Your task to perform on an android device: Open the web browser Image 0: 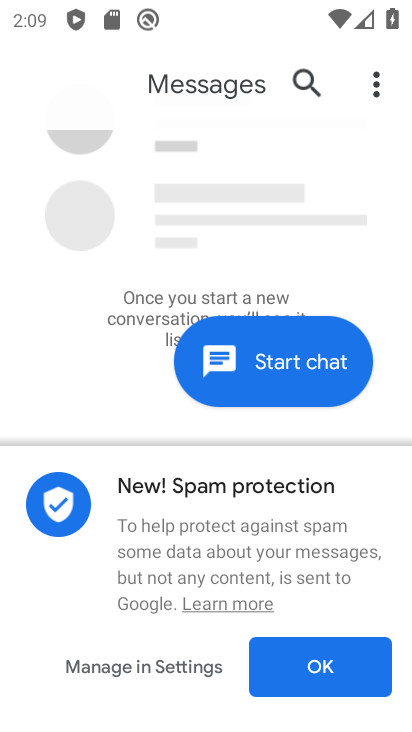
Step 0: press back button
Your task to perform on an android device: Open the web browser Image 1: 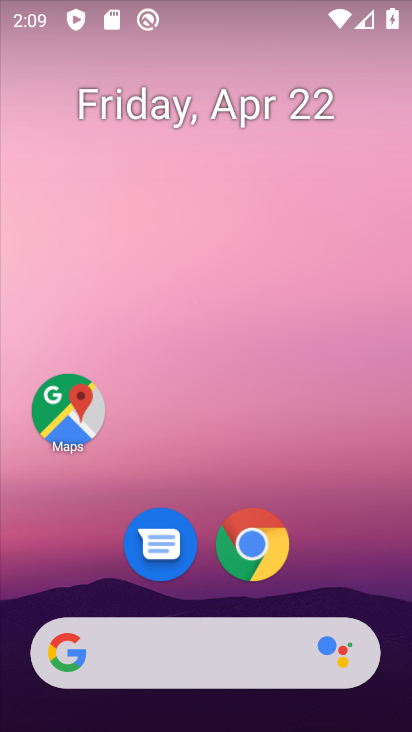
Step 1: drag from (207, 423) to (291, 10)
Your task to perform on an android device: Open the web browser Image 2: 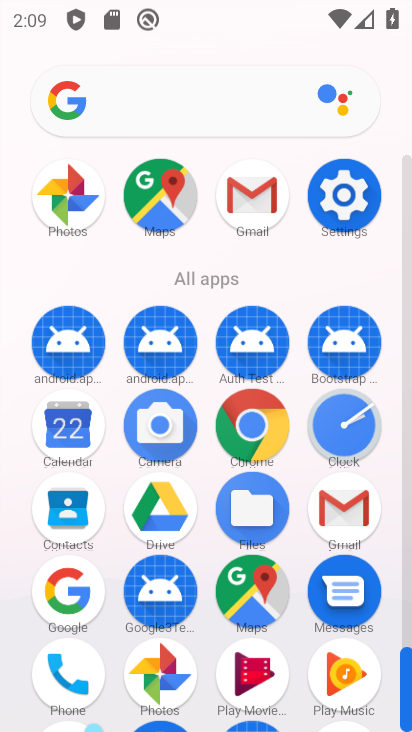
Step 2: click (243, 431)
Your task to perform on an android device: Open the web browser Image 3: 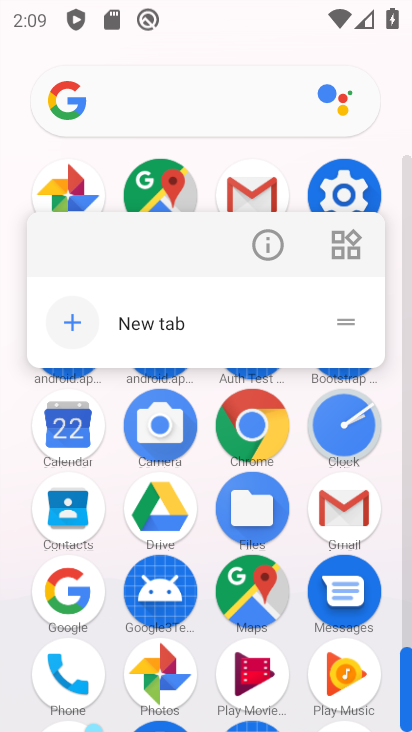
Step 3: click (243, 431)
Your task to perform on an android device: Open the web browser Image 4: 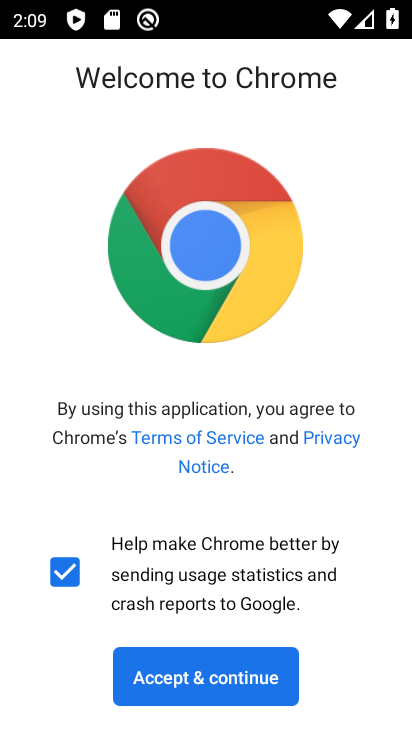
Step 4: click (212, 672)
Your task to perform on an android device: Open the web browser Image 5: 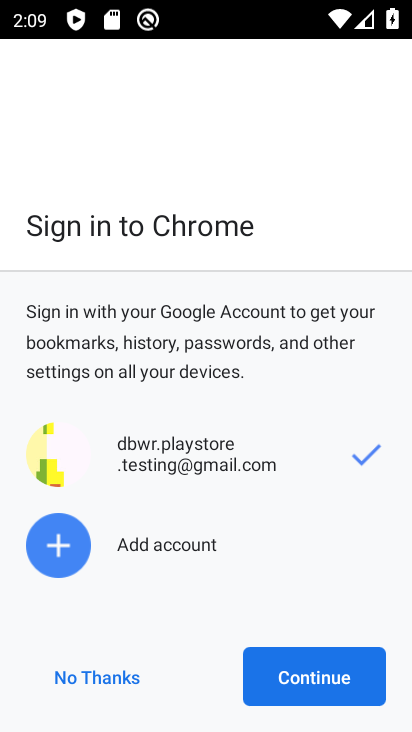
Step 5: click (295, 671)
Your task to perform on an android device: Open the web browser Image 6: 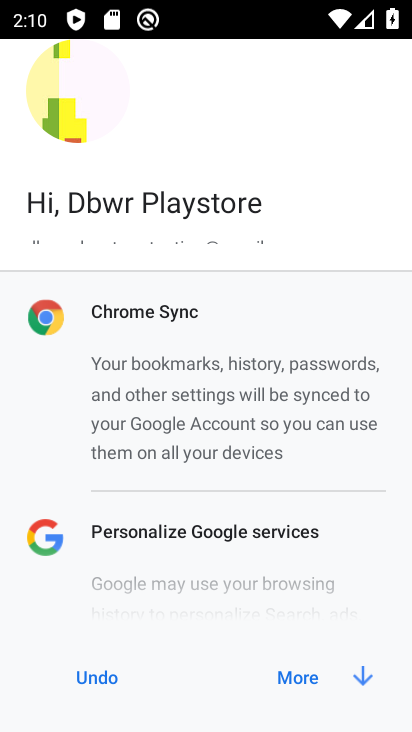
Step 6: click (345, 692)
Your task to perform on an android device: Open the web browser Image 7: 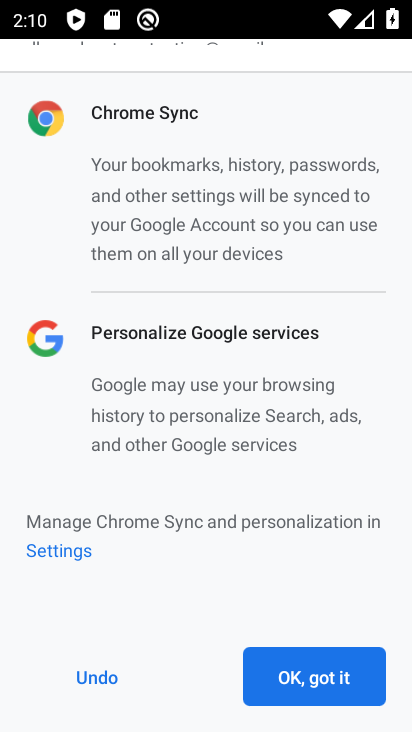
Step 7: click (349, 696)
Your task to perform on an android device: Open the web browser Image 8: 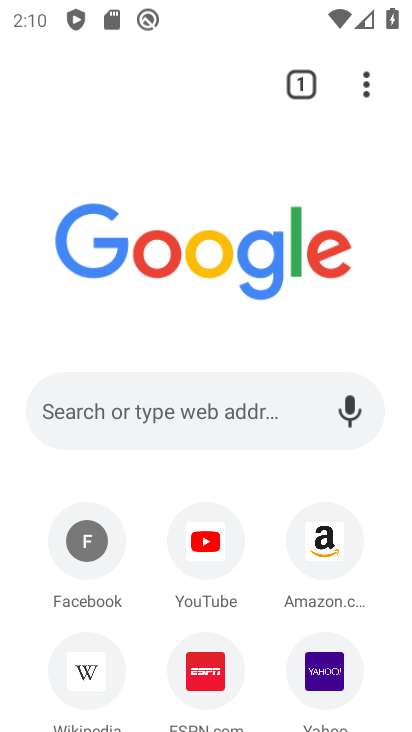
Step 8: task complete